Your task to perform on an android device: Open sound settings Image 0: 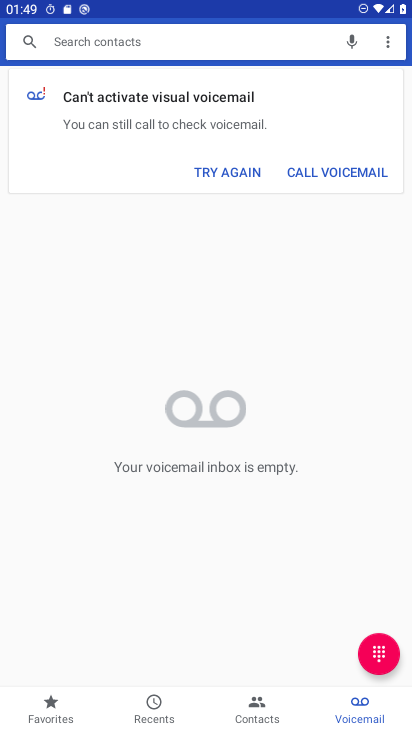
Step 0: press home button
Your task to perform on an android device: Open sound settings Image 1: 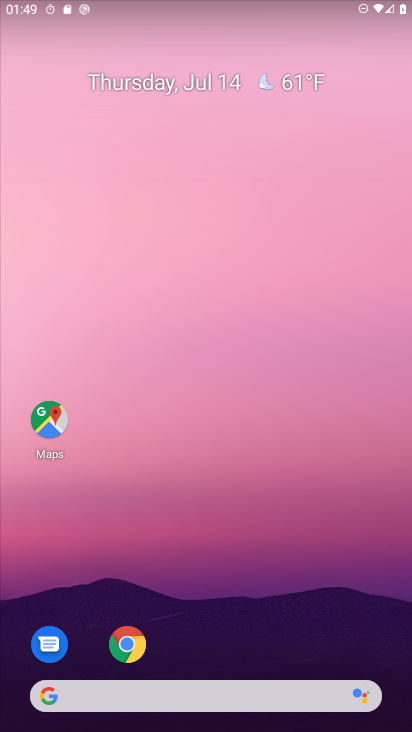
Step 1: drag from (342, 588) to (272, 56)
Your task to perform on an android device: Open sound settings Image 2: 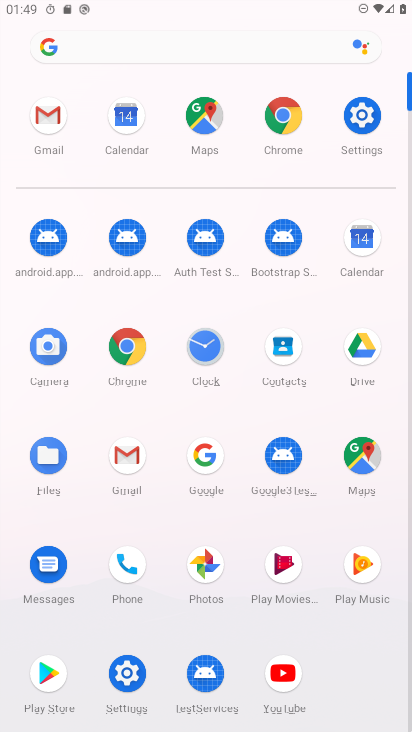
Step 2: click (368, 114)
Your task to perform on an android device: Open sound settings Image 3: 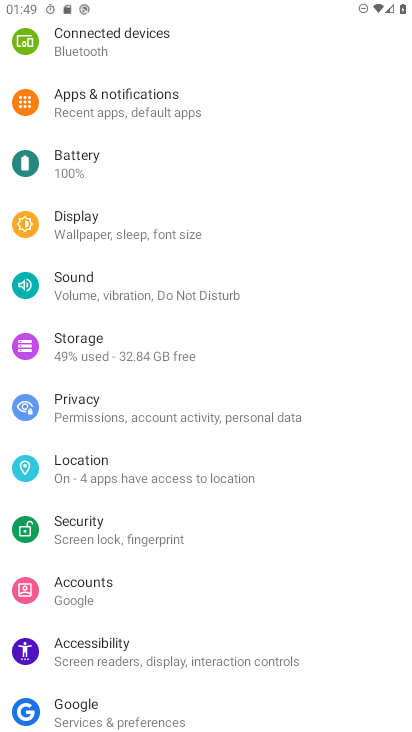
Step 3: click (110, 280)
Your task to perform on an android device: Open sound settings Image 4: 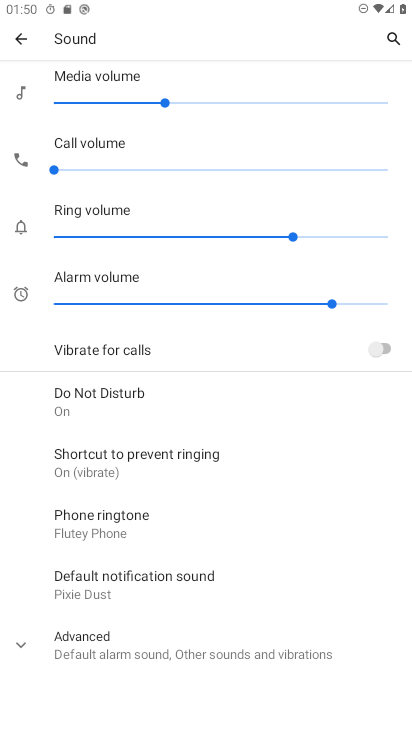
Step 4: task complete